Your task to perform on an android device: Clear the shopping cart on bestbuy. Add razer naga to the cart on bestbuy, then select checkout. Image 0: 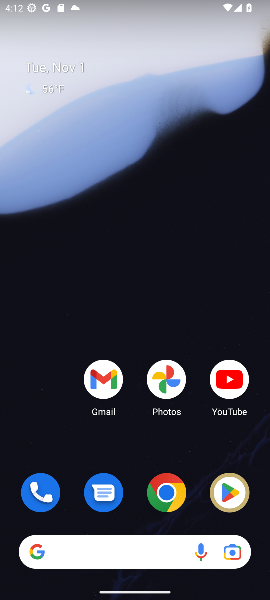
Step 0: click (168, 495)
Your task to perform on an android device: Clear the shopping cart on bestbuy. Add razer naga to the cart on bestbuy, then select checkout. Image 1: 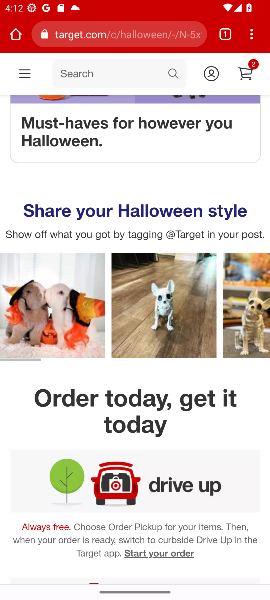
Step 1: click (155, 33)
Your task to perform on an android device: Clear the shopping cart on bestbuy. Add razer naga to the cart on bestbuy, then select checkout. Image 2: 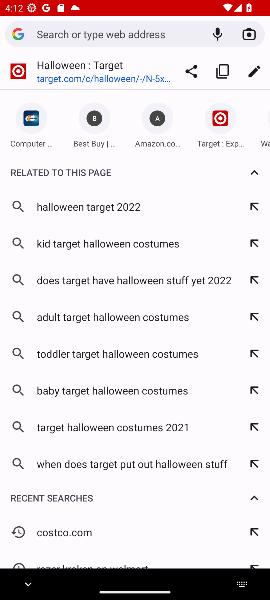
Step 2: type "bestbuy"
Your task to perform on an android device: Clear the shopping cart on bestbuy. Add razer naga to the cart on bestbuy, then select checkout. Image 3: 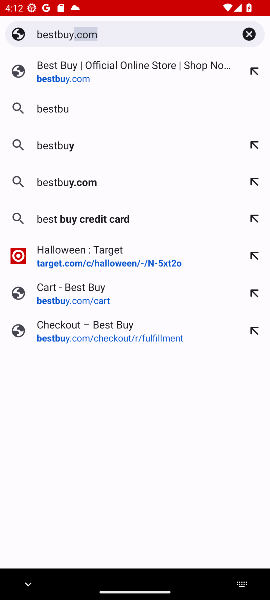
Step 3: type ""
Your task to perform on an android device: Clear the shopping cart on bestbuy. Add razer naga to the cart on bestbuy, then select checkout. Image 4: 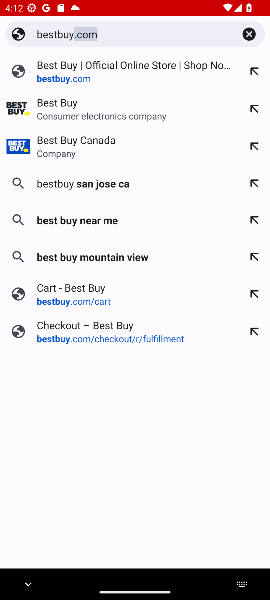
Step 4: click (131, 59)
Your task to perform on an android device: Clear the shopping cart on bestbuy. Add razer naga to the cart on bestbuy, then select checkout. Image 5: 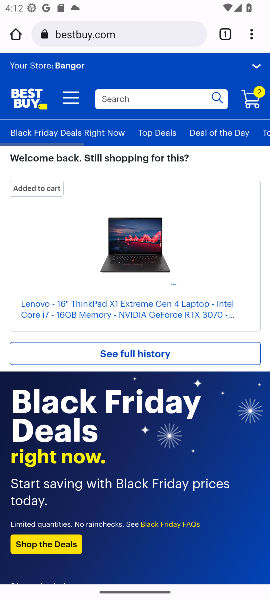
Step 5: drag from (95, 255) to (99, 209)
Your task to perform on an android device: Clear the shopping cart on bestbuy. Add razer naga to the cart on bestbuy, then select checkout. Image 6: 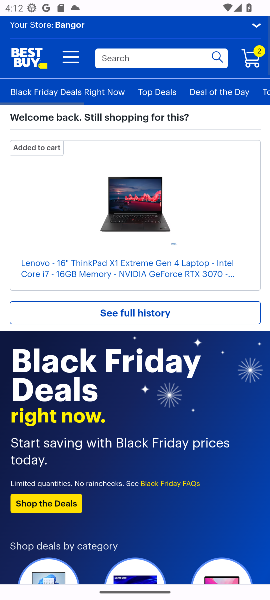
Step 6: drag from (77, 328) to (82, 277)
Your task to perform on an android device: Clear the shopping cart on bestbuy. Add razer naga to the cart on bestbuy, then select checkout. Image 7: 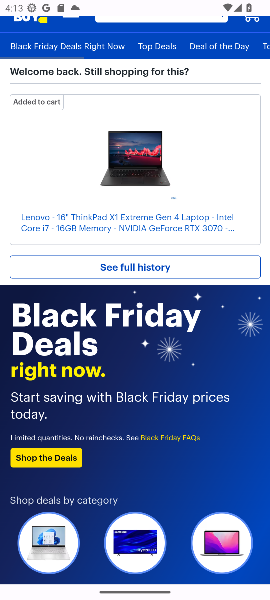
Step 7: drag from (189, 80) to (188, 497)
Your task to perform on an android device: Clear the shopping cart on bestbuy. Add razer naga to the cart on bestbuy, then select checkout. Image 8: 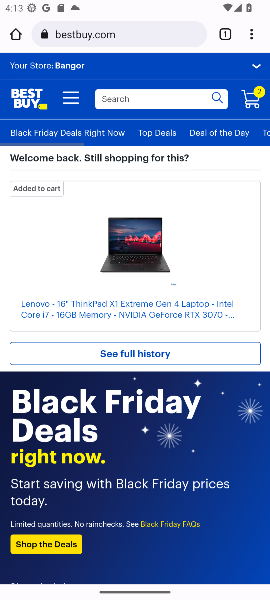
Step 8: click (143, 96)
Your task to perform on an android device: Clear the shopping cart on bestbuy. Add razer naga to the cart on bestbuy, then select checkout. Image 9: 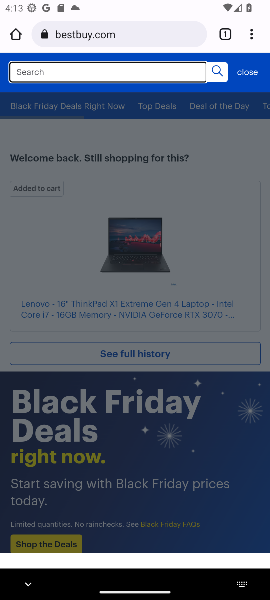
Step 9: type "razer naga"
Your task to perform on an android device: Clear the shopping cart on bestbuy. Add razer naga to the cart on bestbuy, then select checkout. Image 10: 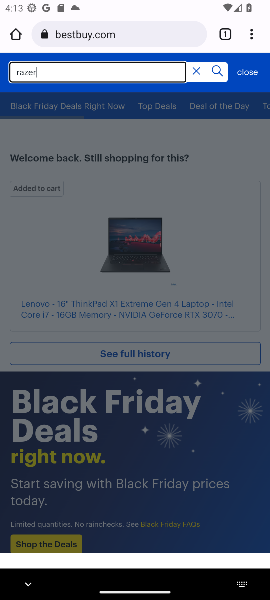
Step 10: type ""
Your task to perform on an android device: Clear the shopping cart on bestbuy. Add razer naga to the cart on bestbuy, then select checkout. Image 11: 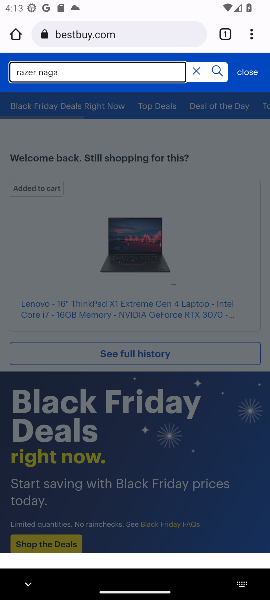
Step 11: press enter
Your task to perform on an android device: Clear the shopping cart on bestbuy. Add razer naga to the cart on bestbuy, then select checkout. Image 12: 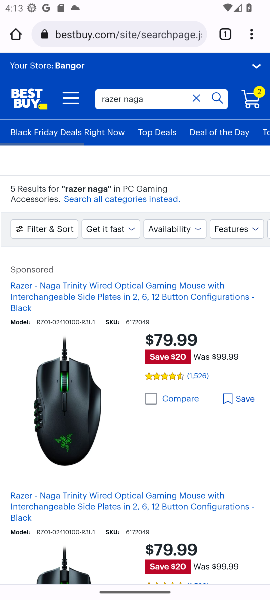
Step 12: click (190, 292)
Your task to perform on an android device: Clear the shopping cart on bestbuy. Add razer naga to the cart on bestbuy, then select checkout. Image 13: 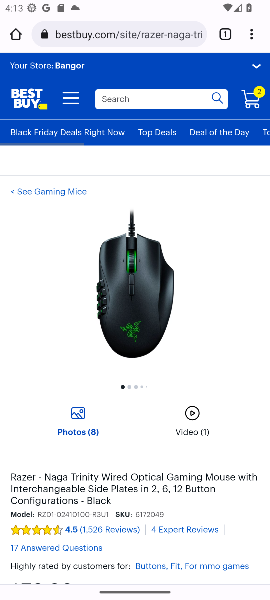
Step 13: drag from (110, 514) to (116, 255)
Your task to perform on an android device: Clear the shopping cart on bestbuy. Add razer naga to the cart on bestbuy, then select checkout. Image 14: 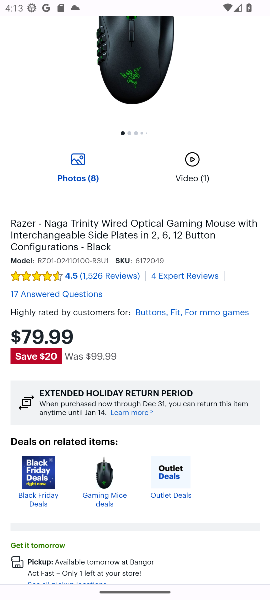
Step 14: drag from (132, 407) to (126, 173)
Your task to perform on an android device: Clear the shopping cart on bestbuy. Add razer naga to the cart on bestbuy, then select checkout. Image 15: 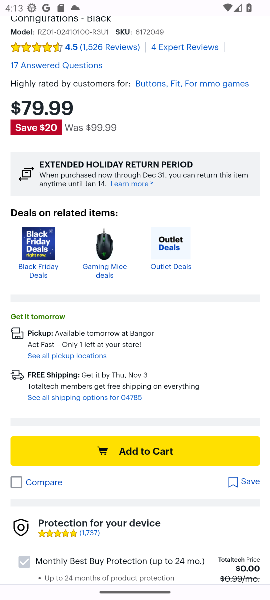
Step 15: click (125, 452)
Your task to perform on an android device: Clear the shopping cart on bestbuy. Add razer naga to the cart on bestbuy, then select checkout. Image 16: 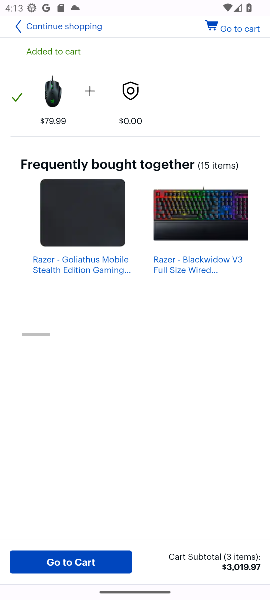
Step 16: click (89, 551)
Your task to perform on an android device: Clear the shopping cart on bestbuy. Add razer naga to the cart on bestbuy, then select checkout. Image 17: 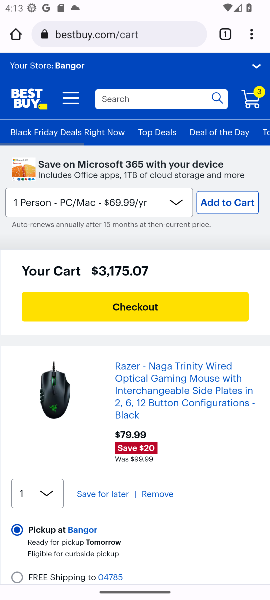
Step 17: click (125, 305)
Your task to perform on an android device: Clear the shopping cart on bestbuy. Add razer naga to the cart on bestbuy, then select checkout. Image 18: 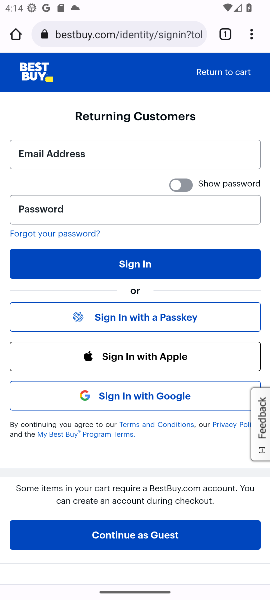
Step 18: task complete